Your task to perform on an android device: choose inbox layout in the gmail app Image 0: 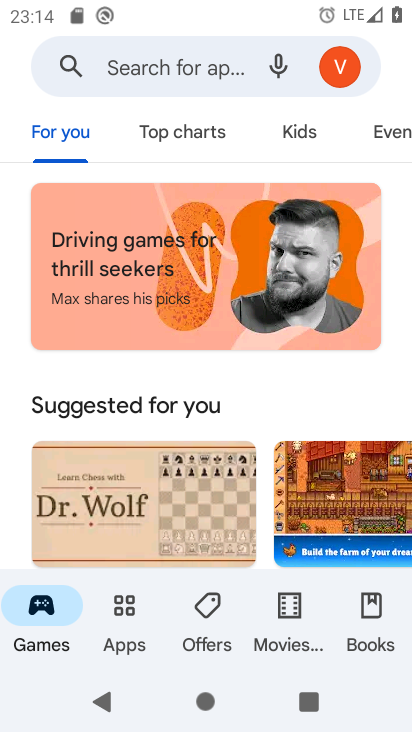
Step 0: press home button
Your task to perform on an android device: choose inbox layout in the gmail app Image 1: 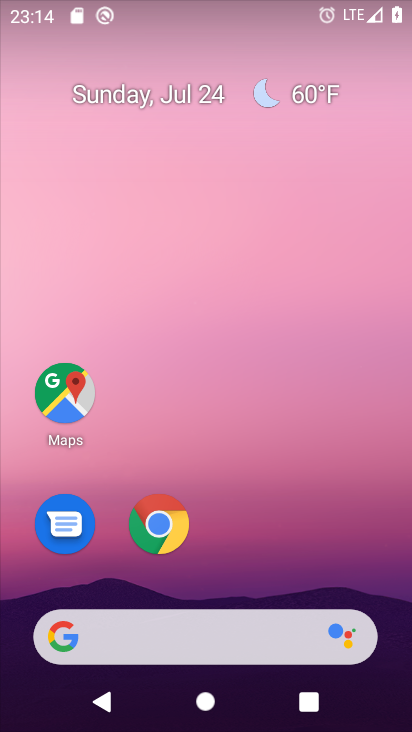
Step 1: drag from (250, 568) to (289, 48)
Your task to perform on an android device: choose inbox layout in the gmail app Image 2: 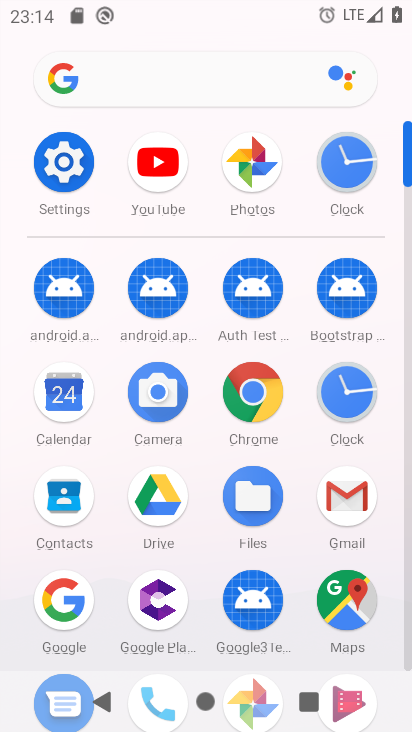
Step 2: click (343, 491)
Your task to perform on an android device: choose inbox layout in the gmail app Image 3: 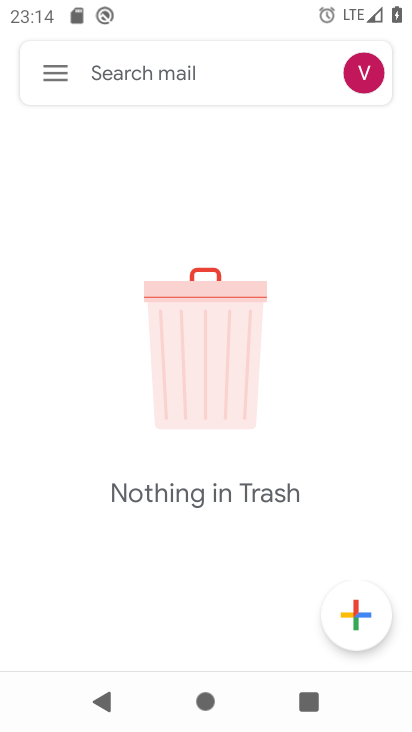
Step 3: click (52, 72)
Your task to perform on an android device: choose inbox layout in the gmail app Image 4: 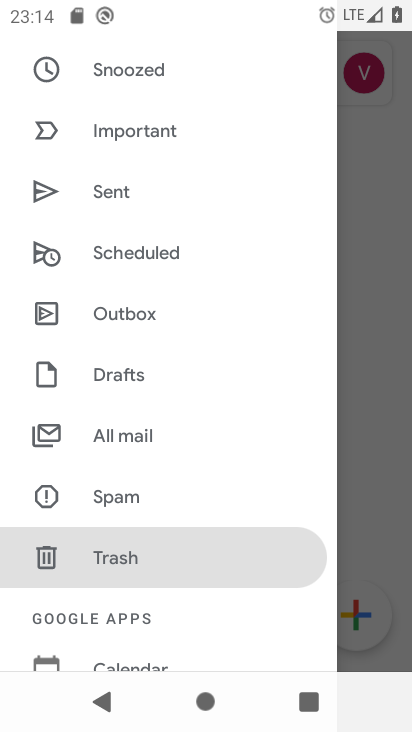
Step 4: drag from (204, 503) to (221, 235)
Your task to perform on an android device: choose inbox layout in the gmail app Image 5: 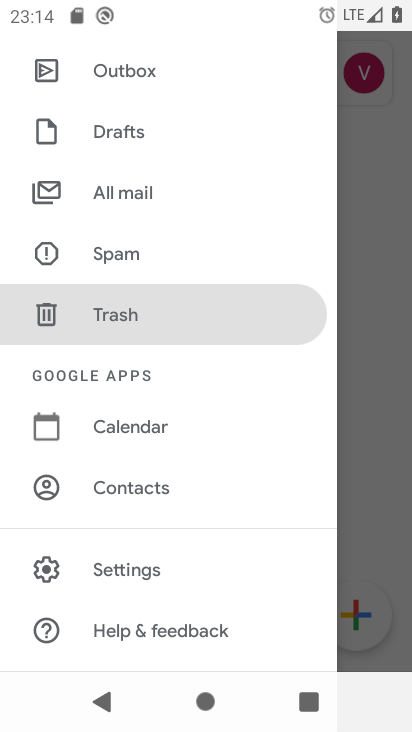
Step 5: click (135, 575)
Your task to perform on an android device: choose inbox layout in the gmail app Image 6: 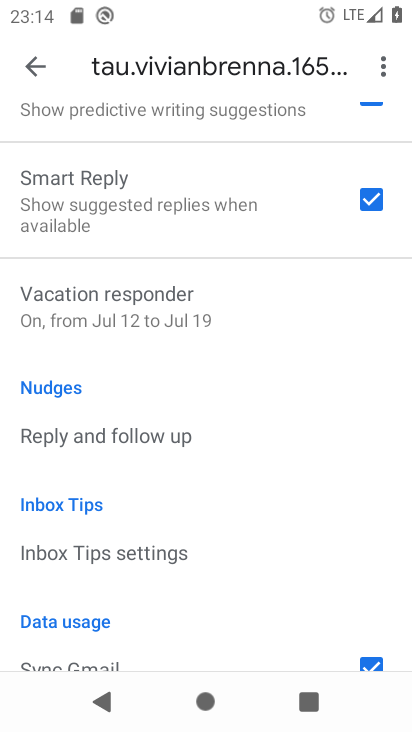
Step 6: drag from (220, 202) to (166, 627)
Your task to perform on an android device: choose inbox layout in the gmail app Image 7: 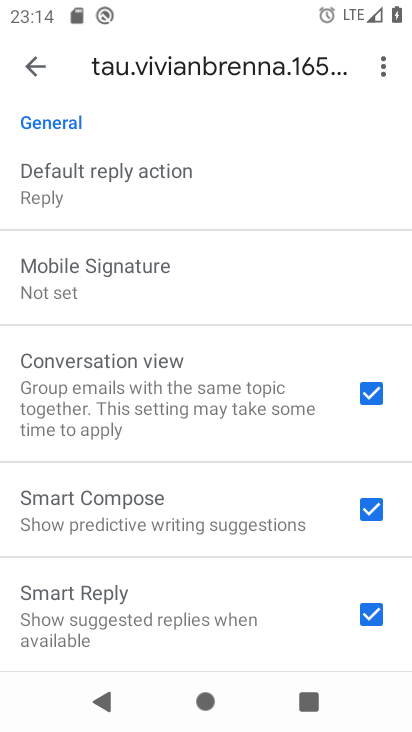
Step 7: drag from (202, 128) to (164, 691)
Your task to perform on an android device: choose inbox layout in the gmail app Image 8: 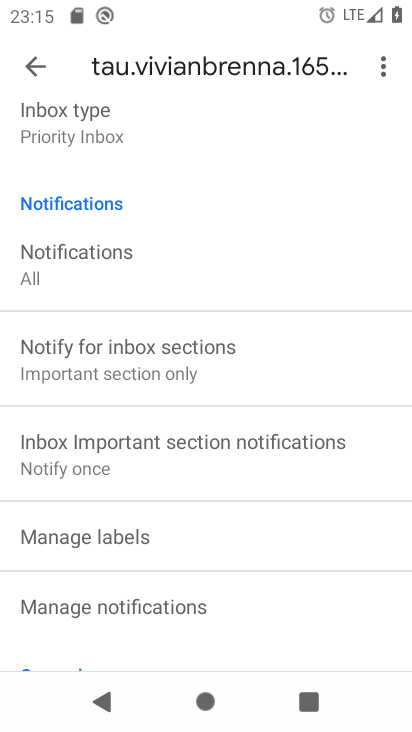
Step 8: click (88, 113)
Your task to perform on an android device: choose inbox layout in the gmail app Image 9: 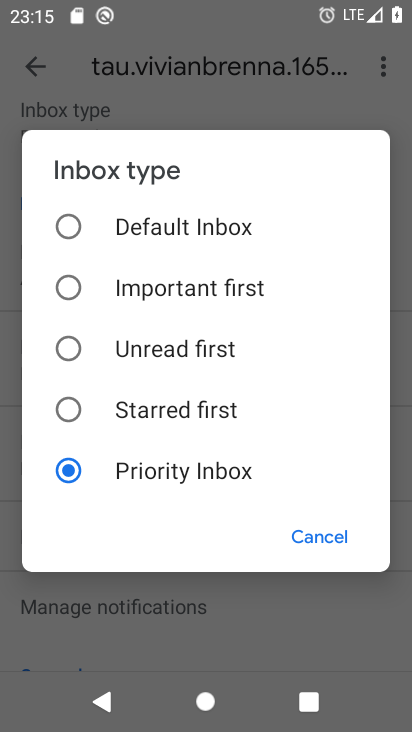
Step 9: click (68, 465)
Your task to perform on an android device: choose inbox layout in the gmail app Image 10: 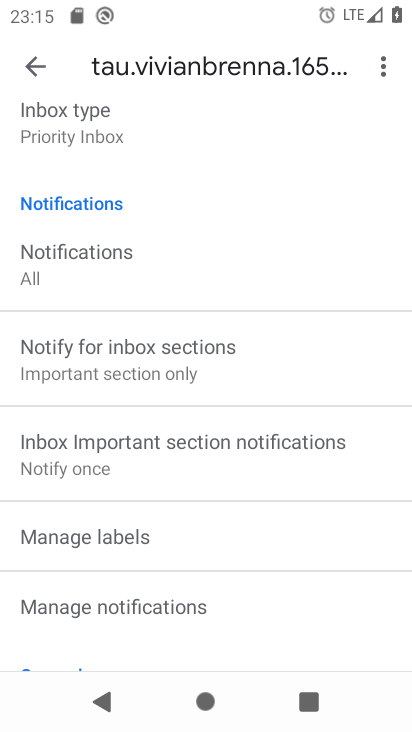
Step 10: task complete